Your task to perform on an android device: turn off picture-in-picture Image 0: 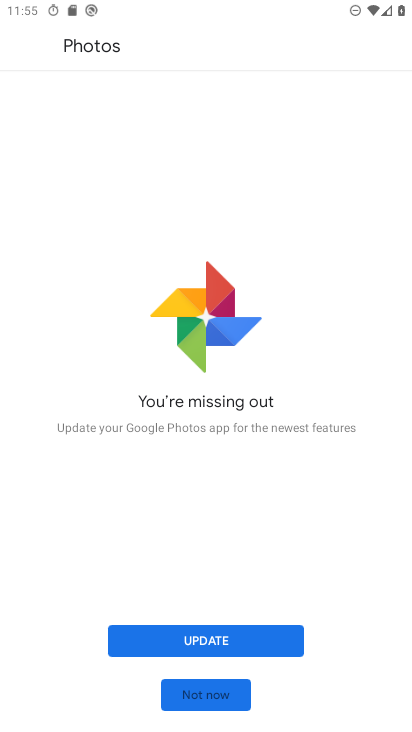
Step 0: press home button
Your task to perform on an android device: turn off picture-in-picture Image 1: 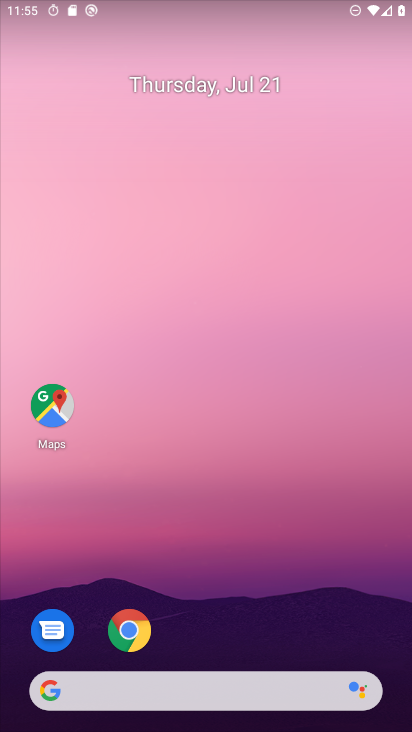
Step 1: press home button
Your task to perform on an android device: turn off picture-in-picture Image 2: 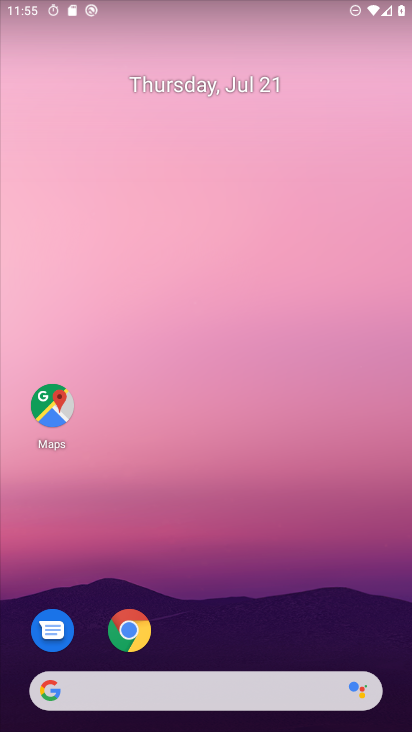
Step 2: click (148, 631)
Your task to perform on an android device: turn off picture-in-picture Image 3: 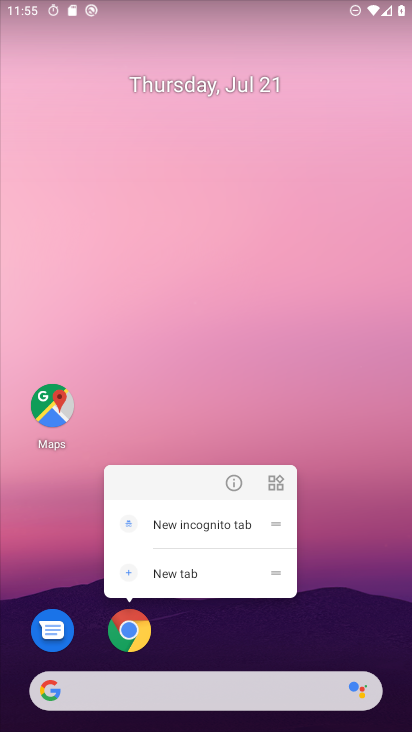
Step 3: click (229, 483)
Your task to perform on an android device: turn off picture-in-picture Image 4: 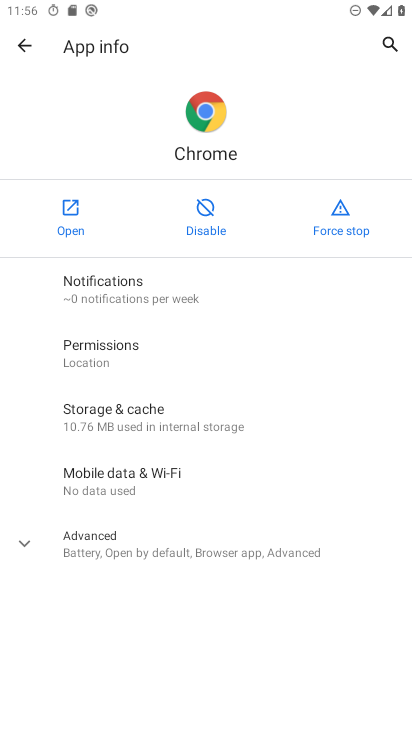
Step 4: click (22, 545)
Your task to perform on an android device: turn off picture-in-picture Image 5: 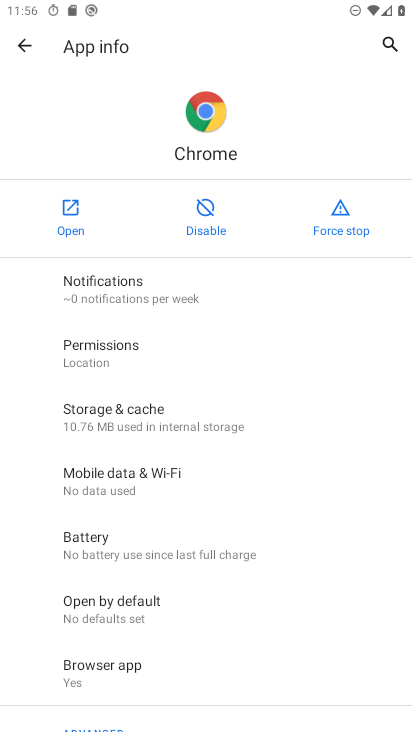
Step 5: drag from (321, 593) to (299, 317)
Your task to perform on an android device: turn off picture-in-picture Image 6: 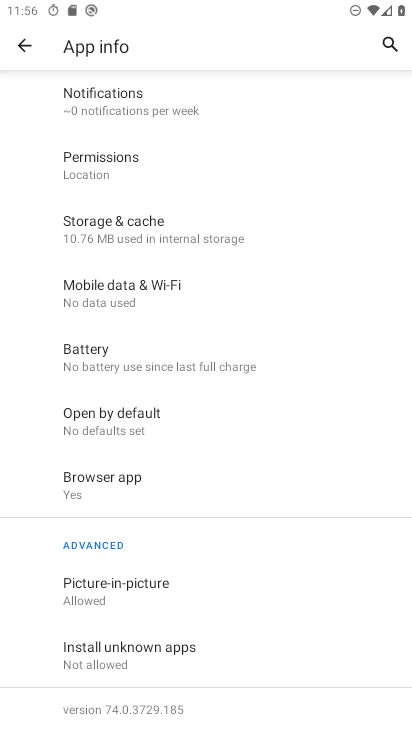
Step 6: click (134, 589)
Your task to perform on an android device: turn off picture-in-picture Image 7: 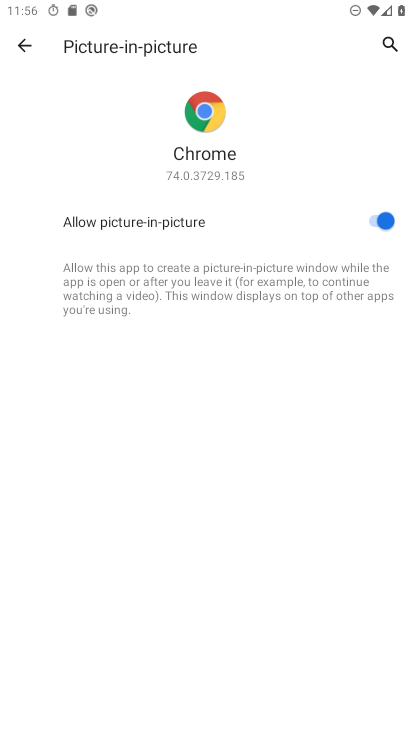
Step 7: click (383, 217)
Your task to perform on an android device: turn off picture-in-picture Image 8: 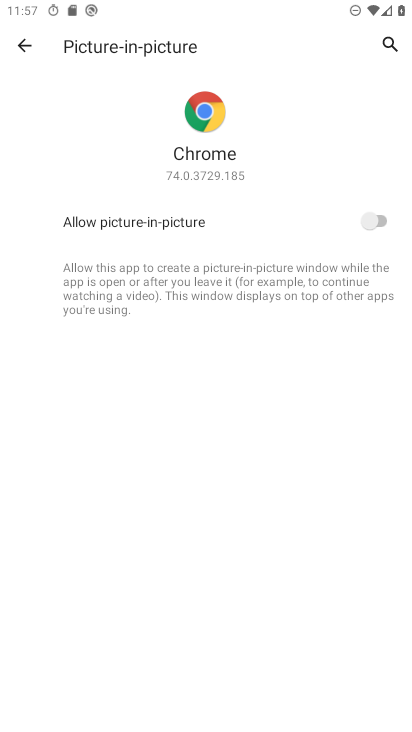
Step 8: task complete